Your task to perform on an android device: What's on my calendar today? Image 0: 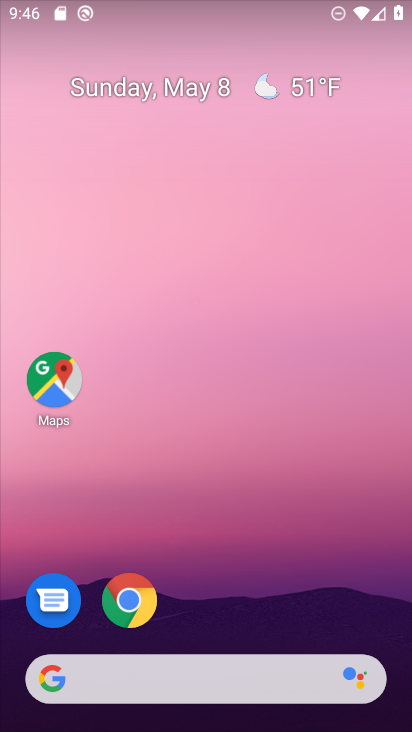
Step 0: drag from (300, 603) to (344, 67)
Your task to perform on an android device: What's on my calendar today? Image 1: 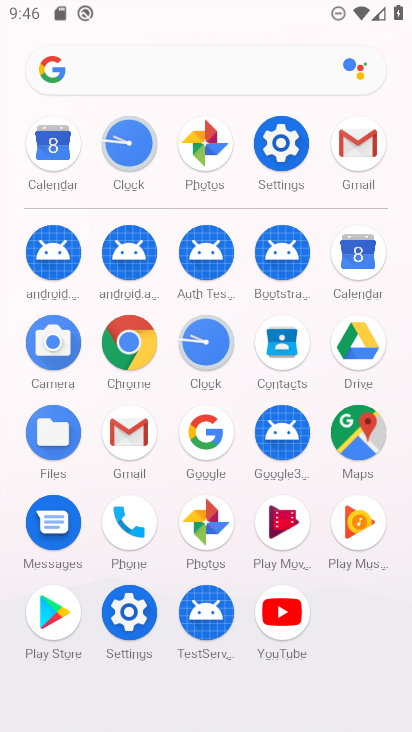
Step 1: click (59, 151)
Your task to perform on an android device: What's on my calendar today? Image 2: 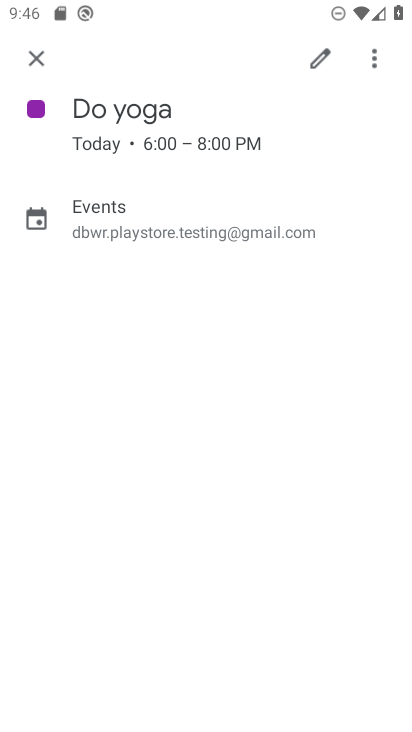
Step 2: click (39, 71)
Your task to perform on an android device: What's on my calendar today? Image 3: 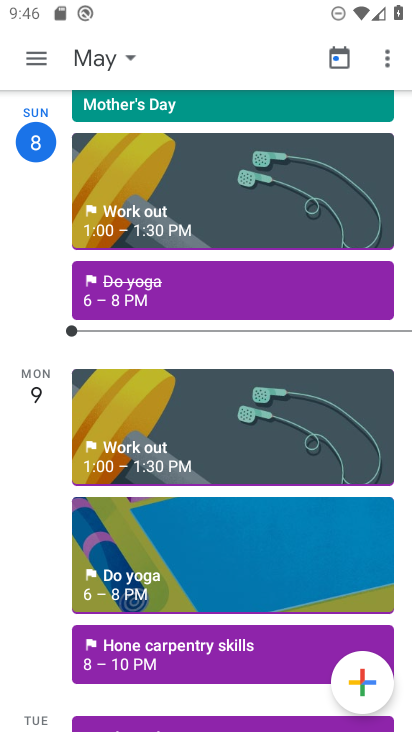
Step 3: drag from (94, 177) to (118, 433)
Your task to perform on an android device: What's on my calendar today? Image 4: 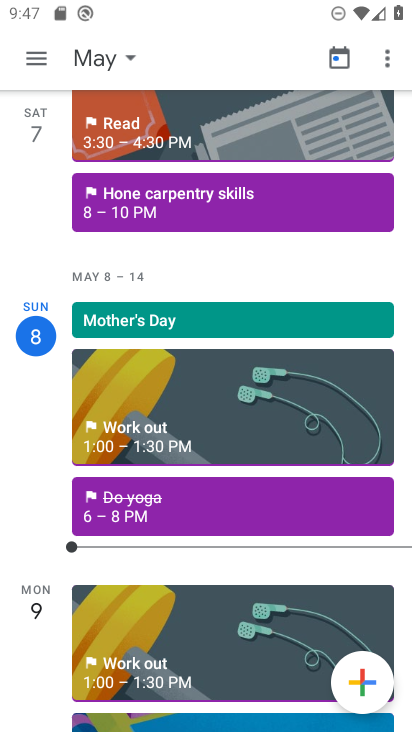
Step 4: click (205, 326)
Your task to perform on an android device: What's on my calendar today? Image 5: 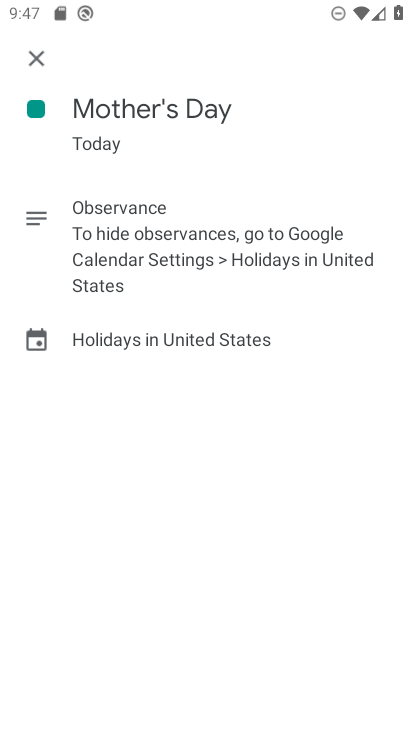
Step 5: task complete